Your task to perform on an android device: turn on data saver in the chrome app Image 0: 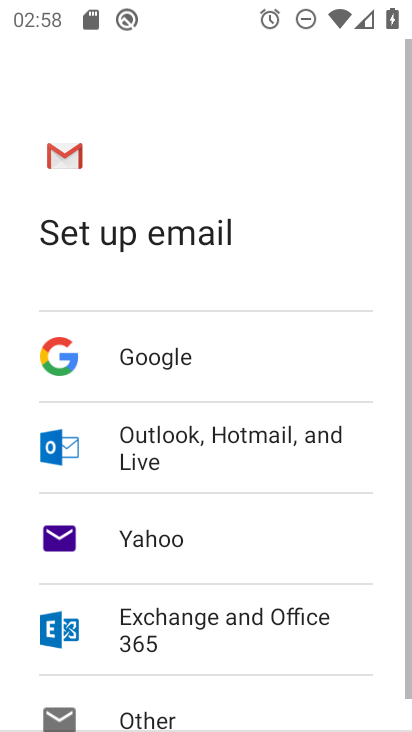
Step 0: press home button
Your task to perform on an android device: turn on data saver in the chrome app Image 1: 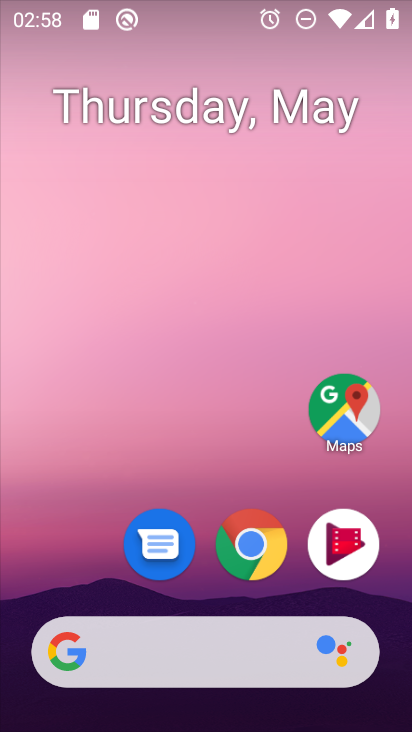
Step 1: drag from (47, 580) to (96, 289)
Your task to perform on an android device: turn on data saver in the chrome app Image 2: 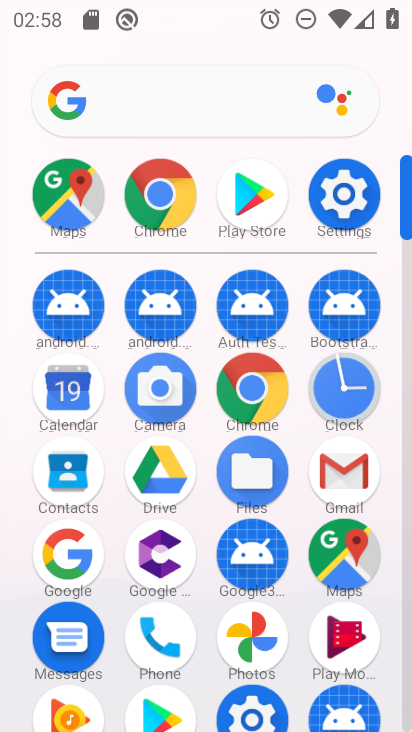
Step 2: click (163, 208)
Your task to perform on an android device: turn on data saver in the chrome app Image 3: 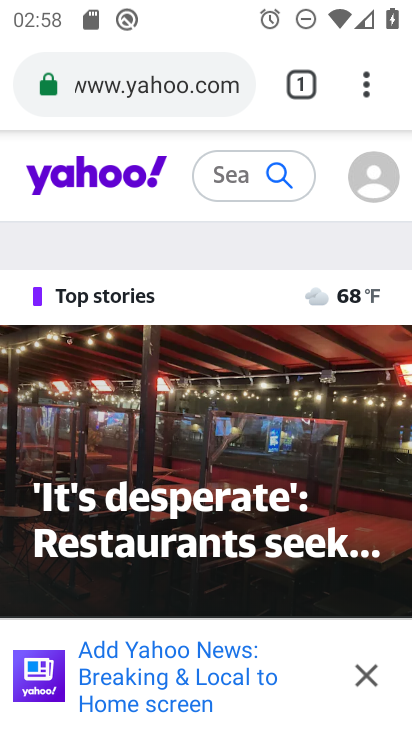
Step 3: click (362, 88)
Your task to perform on an android device: turn on data saver in the chrome app Image 4: 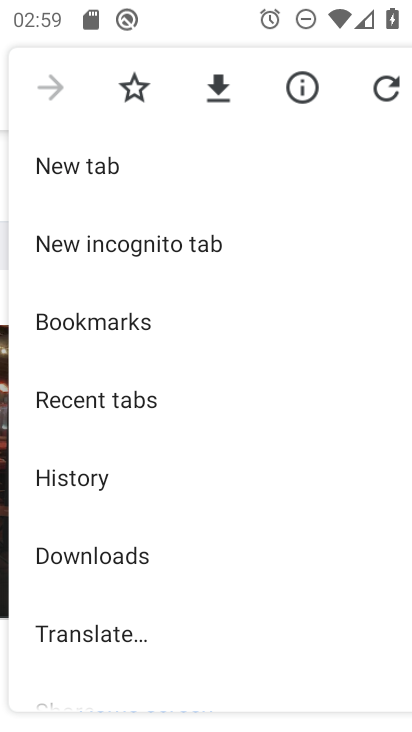
Step 4: drag from (313, 562) to (321, 360)
Your task to perform on an android device: turn on data saver in the chrome app Image 5: 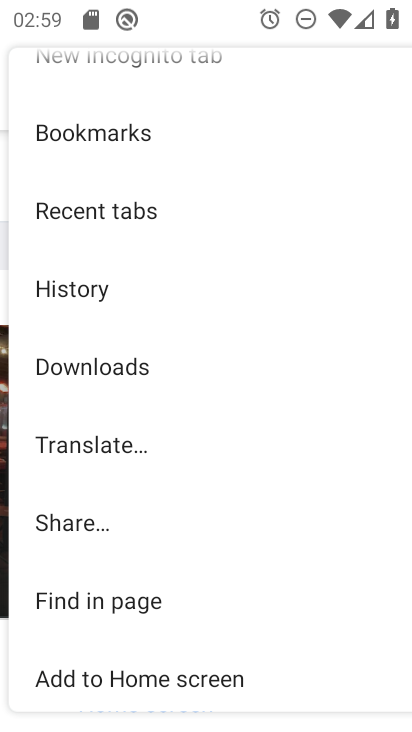
Step 5: drag from (320, 583) to (325, 350)
Your task to perform on an android device: turn on data saver in the chrome app Image 6: 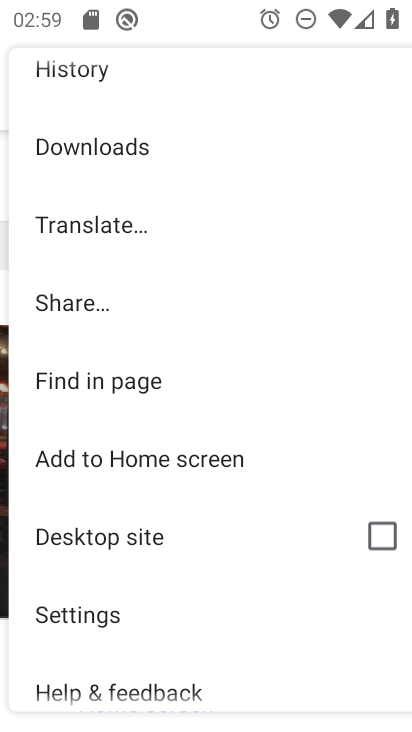
Step 6: drag from (275, 540) to (288, 360)
Your task to perform on an android device: turn on data saver in the chrome app Image 7: 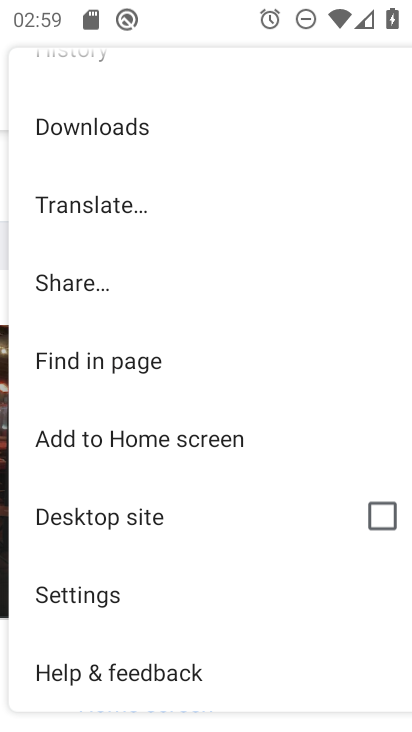
Step 7: drag from (272, 591) to (281, 398)
Your task to perform on an android device: turn on data saver in the chrome app Image 8: 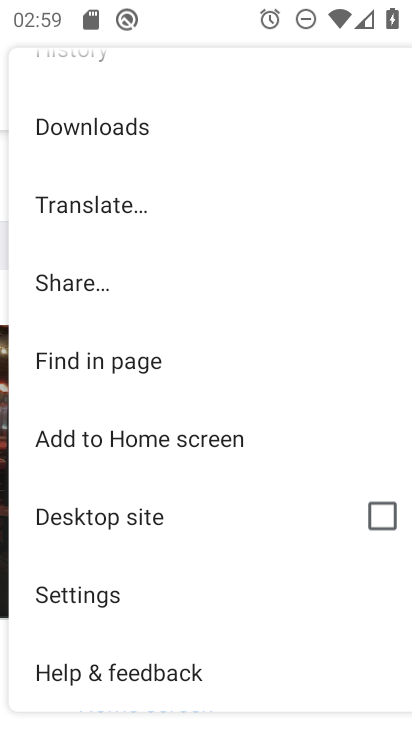
Step 8: drag from (278, 329) to (270, 536)
Your task to perform on an android device: turn on data saver in the chrome app Image 9: 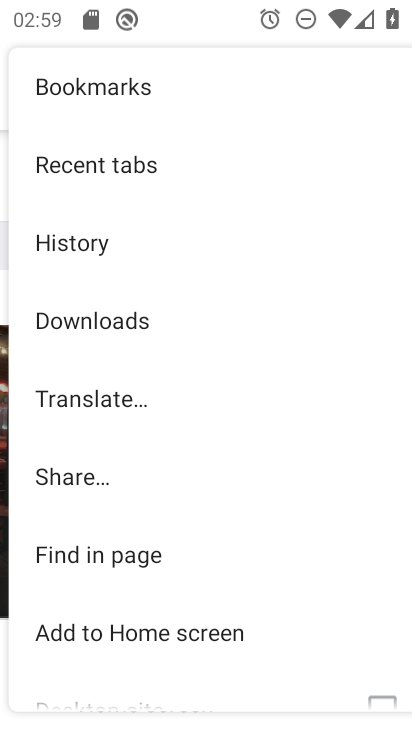
Step 9: drag from (293, 330) to (286, 548)
Your task to perform on an android device: turn on data saver in the chrome app Image 10: 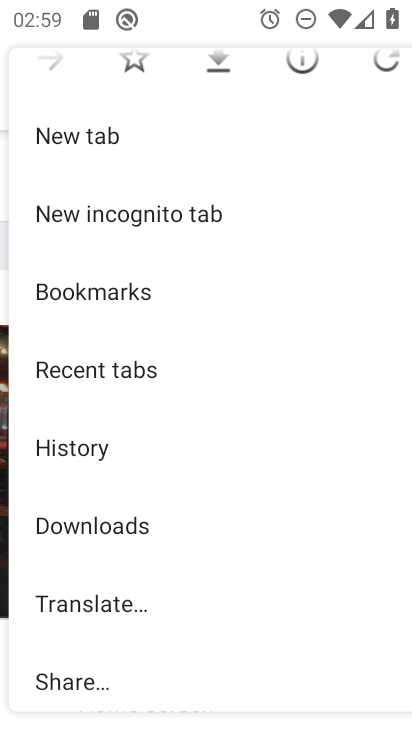
Step 10: drag from (307, 351) to (290, 481)
Your task to perform on an android device: turn on data saver in the chrome app Image 11: 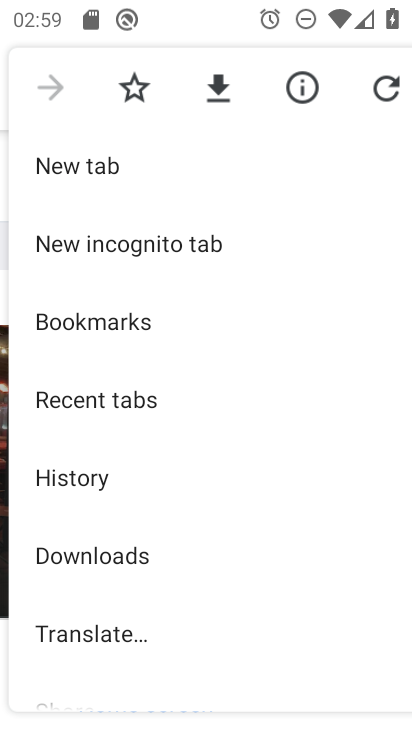
Step 11: drag from (285, 568) to (300, 416)
Your task to perform on an android device: turn on data saver in the chrome app Image 12: 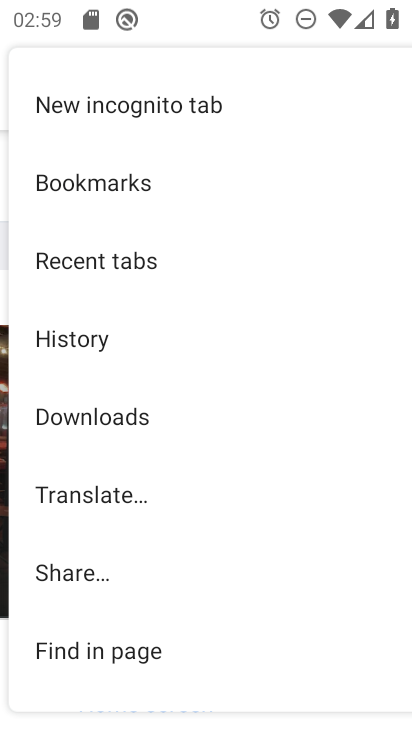
Step 12: drag from (244, 582) to (242, 420)
Your task to perform on an android device: turn on data saver in the chrome app Image 13: 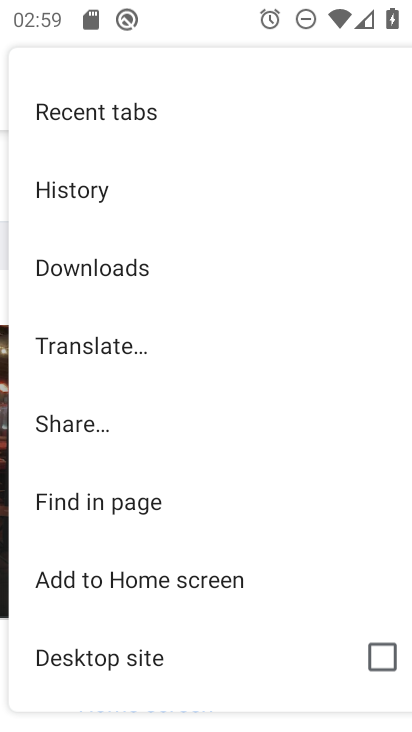
Step 13: drag from (264, 641) to (265, 480)
Your task to perform on an android device: turn on data saver in the chrome app Image 14: 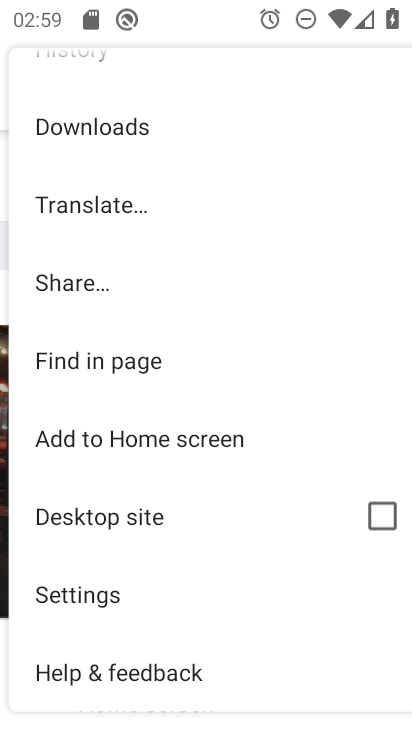
Step 14: click (104, 598)
Your task to perform on an android device: turn on data saver in the chrome app Image 15: 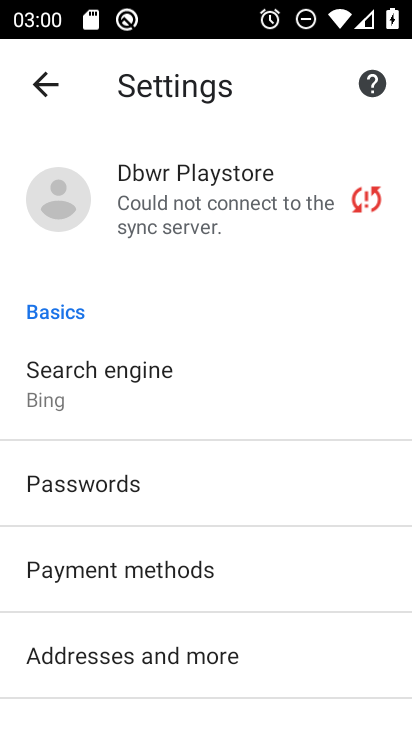
Step 15: drag from (266, 635) to (290, 493)
Your task to perform on an android device: turn on data saver in the chrome app Image 16: 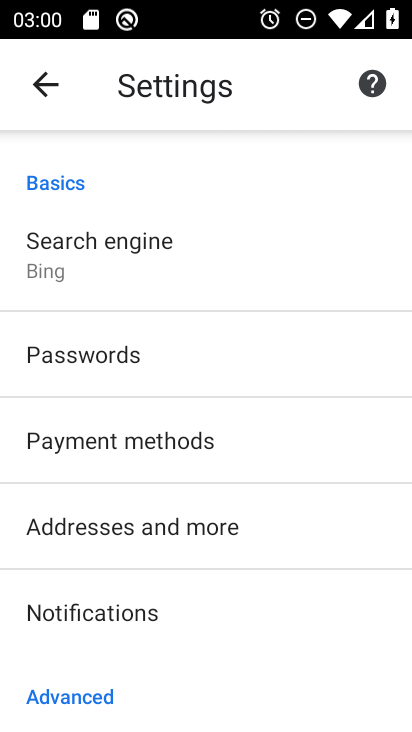
Step 16: drag from (295, 616) to (304, 489)
Your task to perform on an android device: turn on data saver in the chrome app Image 17: 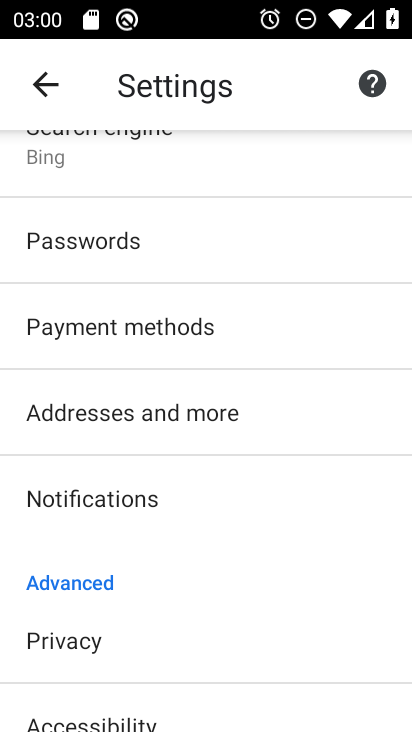
Step 17: drag from (275, 615) to (294, 427)
Your task to perform on an android device: turn on data saver in the chrome app Image 18: 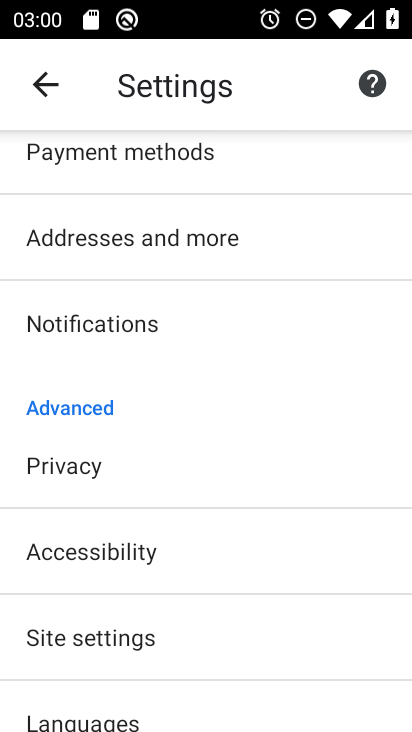
Step 18: drag from (276, 649) to (275, 429)
Your task to perform on an android device: turn on data saver in the chrome app Image 19: 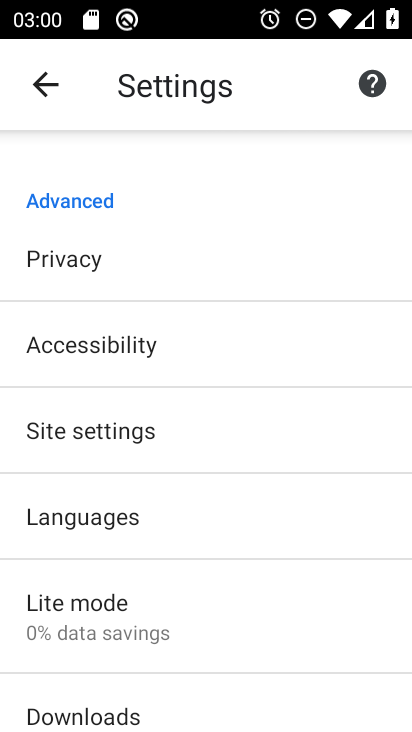
Step 19: drag from (234, 655) to (239, 476)
Your task to perform on an android device: turn on data saver in the chrome app Image 20: 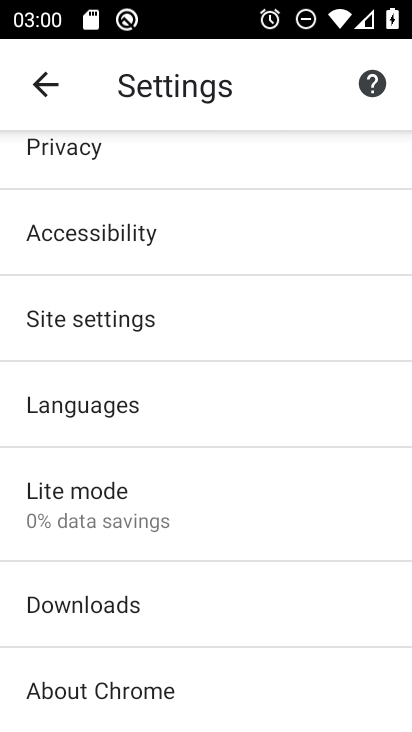
Step 20: click (209, 515)
Your task to perform on an android device: turn on data saver in the chrome app Image 21: 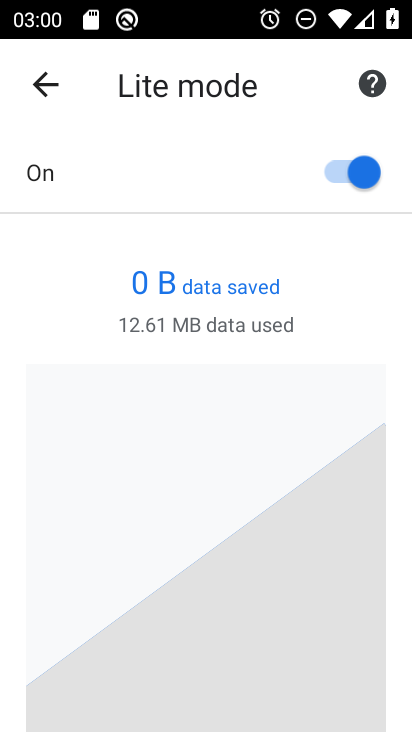
Step 21: task complete